Your task to perform on an android device: Open battery settings Image 0: 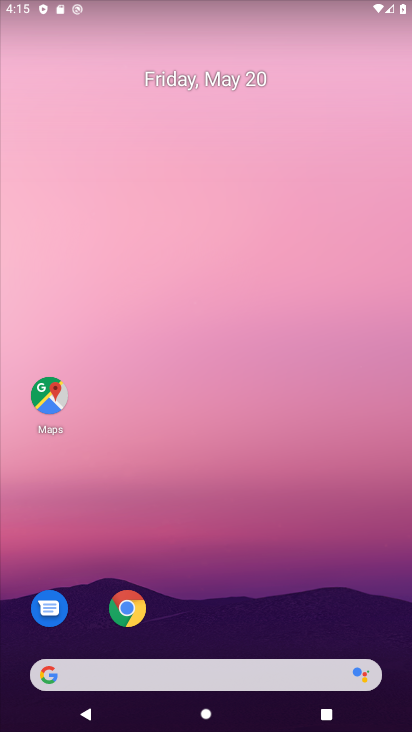
Step 0: drag from (197, 637) to (128, 91)
Your task to perform on an android device: Open battery settings Image 1: 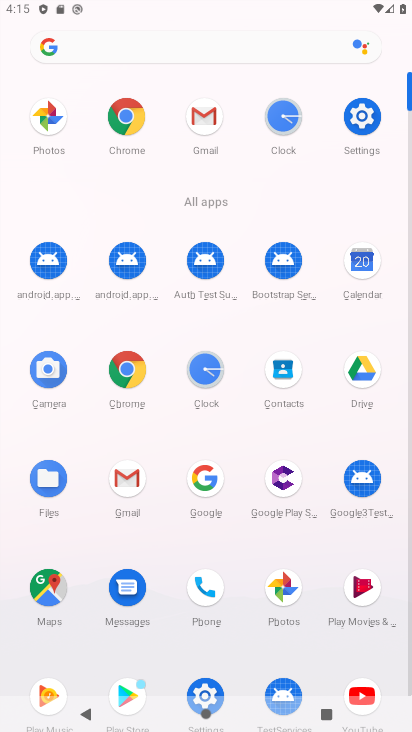
Step 1: click (359, 126)
Your task to perform on an android device: Open battery settings Image 2: 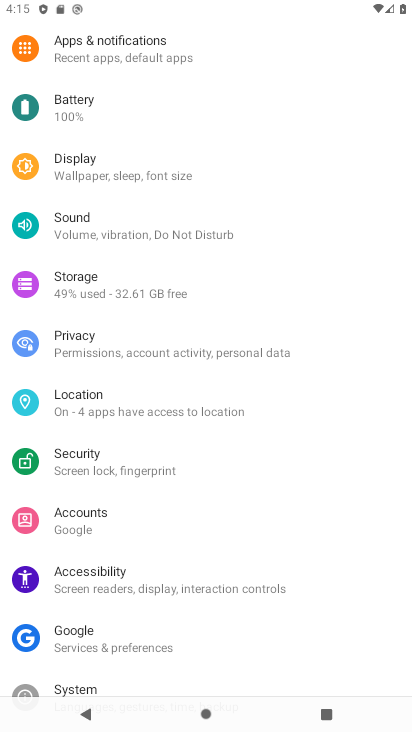
Step 2: click (77, 91)
Your task to perform on an android device: Open battery settings Image 3: 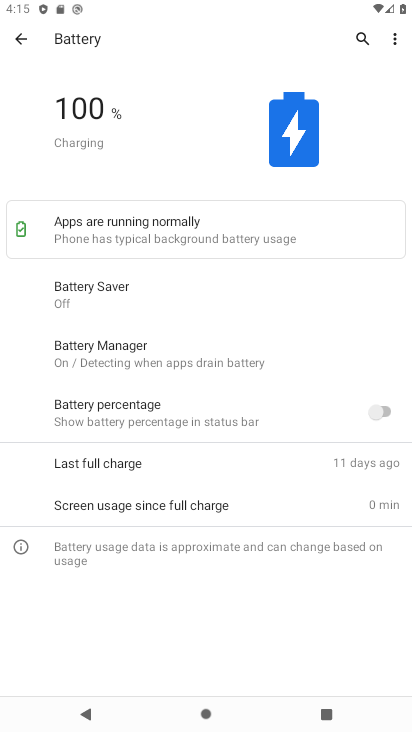
Step 3: task complete